Your task to perform on an android device: remove spam from my inbox in the gmail app Image 0: 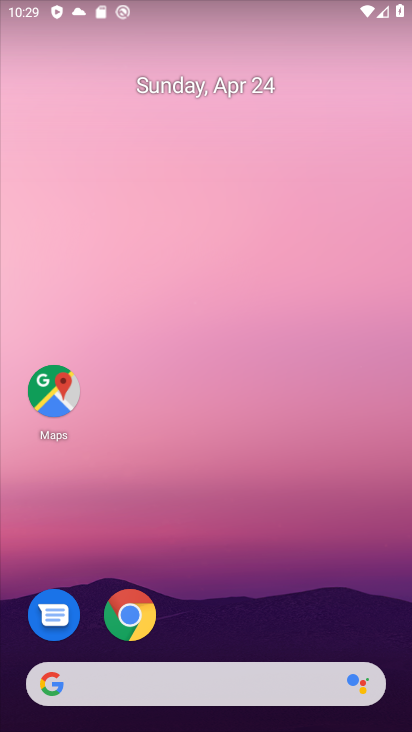
Step 0: drag from (215, 639) to (216, 68)
Your task to perform on an android device: remove spam from my inbox in the gmail app Image 1: 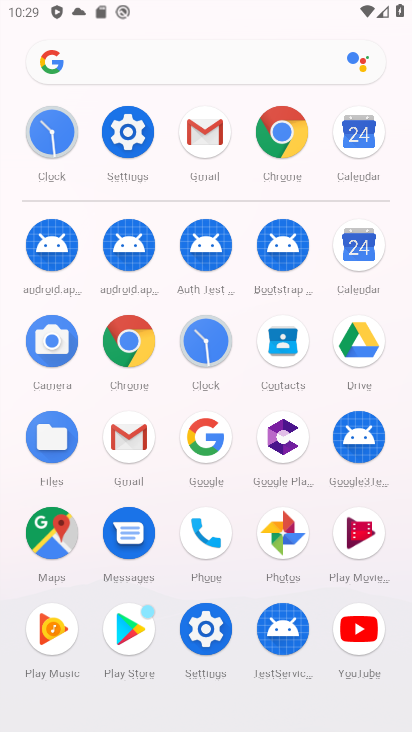
Step 1: click (127, 432)
Your task to perform on an android device: remove spam from my inbox in the gmail app Image 2: 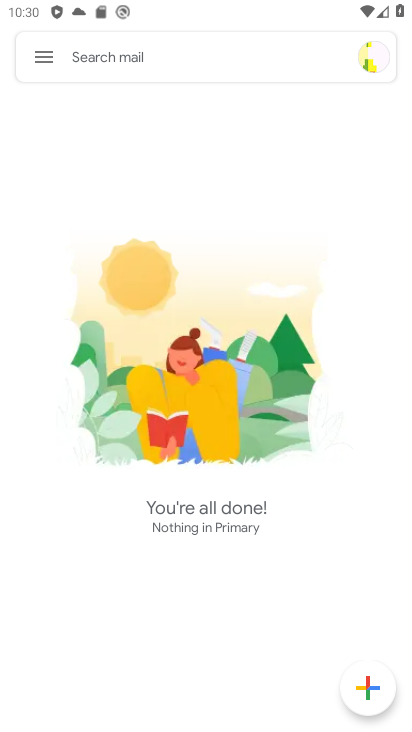
Step 2: click (39, 51)
Your task to perform on an android device: remove spam from my inbox in the gmail app Image 3: 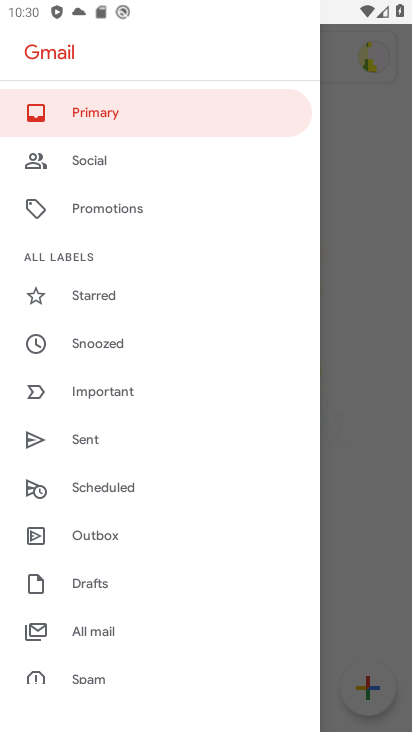
Step 3: click (112, 676)
Your task to perform on an android device: remove spam from my inbox in the gmail app Image 4: 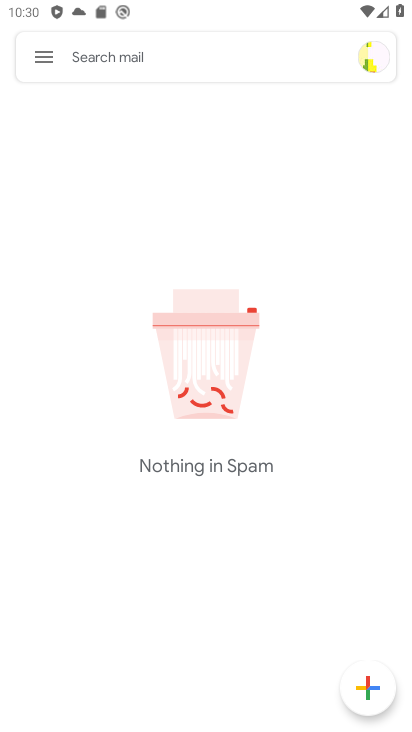
Step 4: task complete